Your task to perform on an android device: Open maps Image 0: 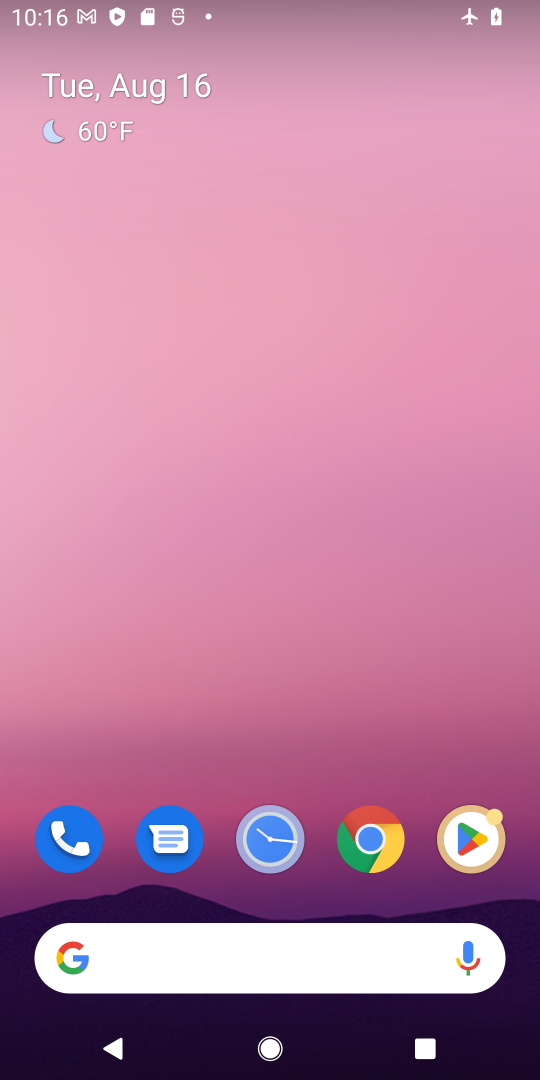
Step 0: drag from (224, 731) to (271, 36)
Your task to perform on an android device: Open maps Image 1: 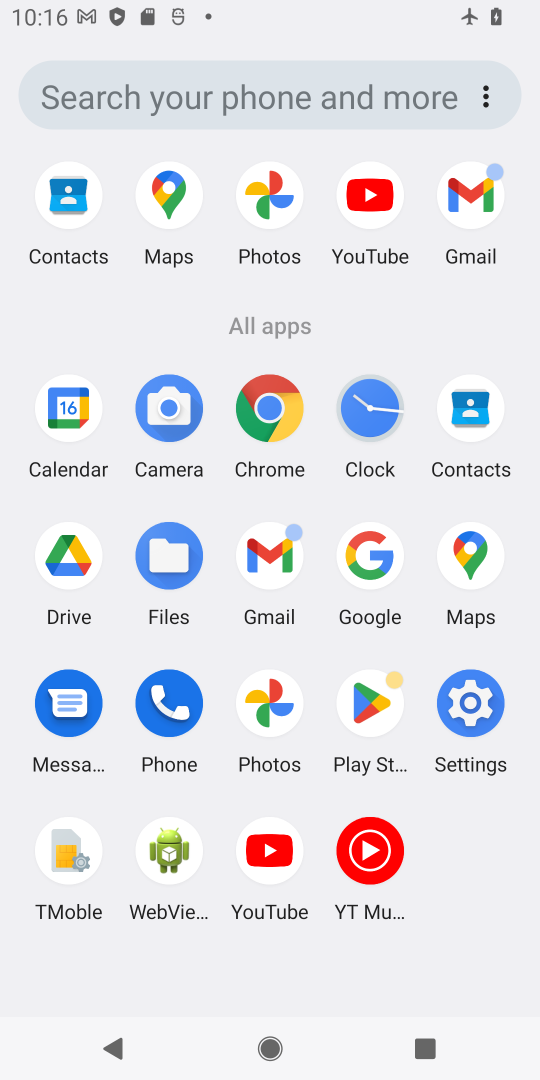
Step 1: click (469, 570)
Your task to perform on an android device: Open maps Image 2: 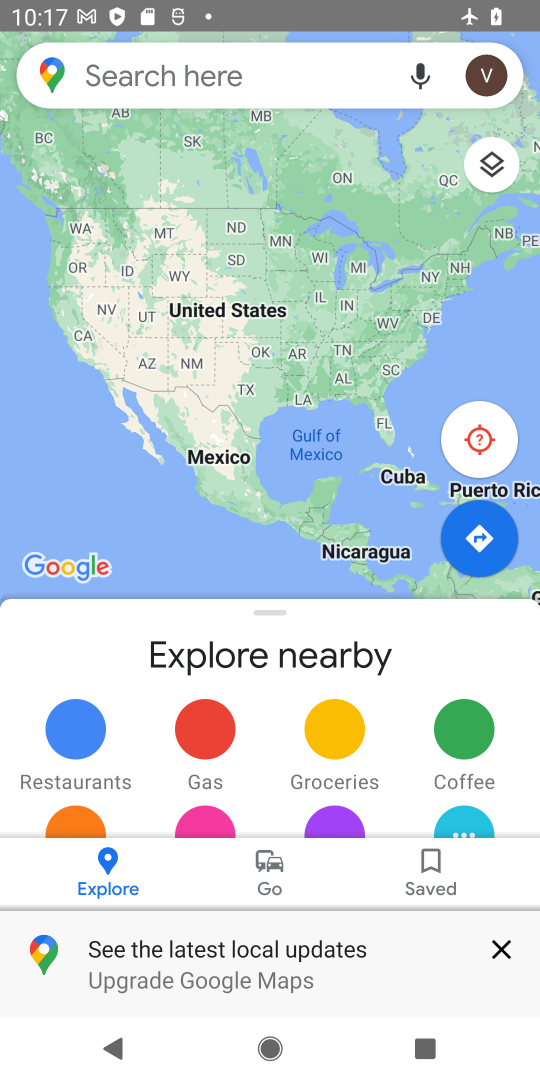
Step 2: task complete